Your task to perform on an android device: Open privacy settings Image 0: 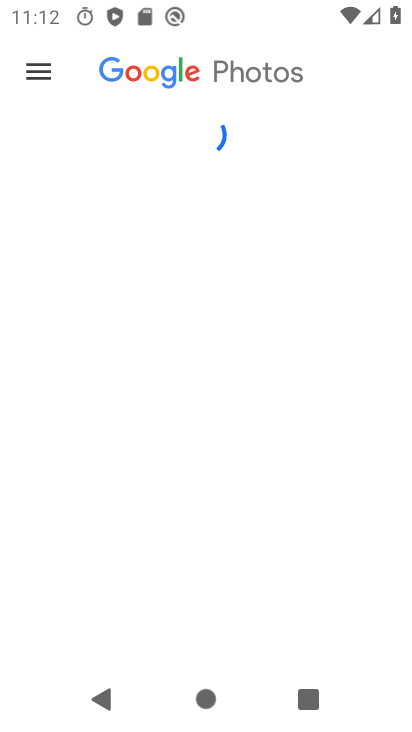
Step 0: press home button
Your task to perform on an android device: Open privacy settings Image 1: 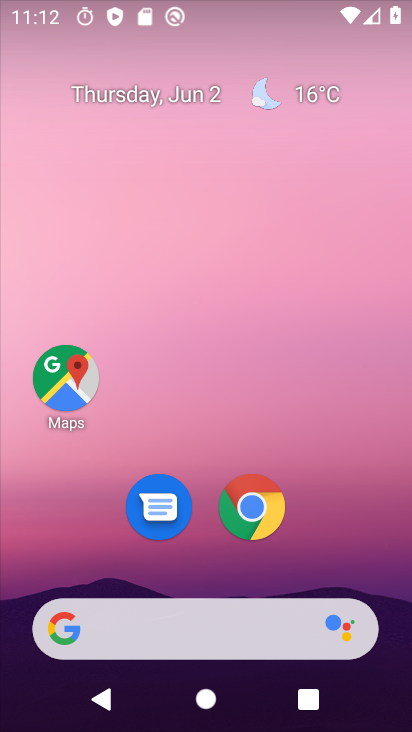
Step 1: drag from (395, 637) to (265, 31)
Your task to perform on an android device: Open privacy settings Image 2: 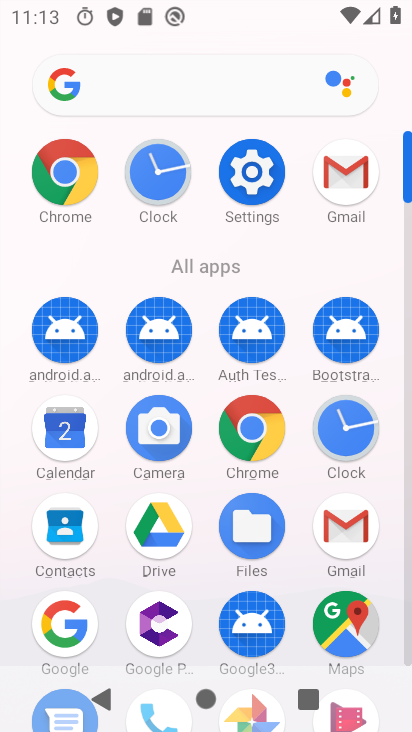
Step 2: click (233, 169)
Your task to perform on an android device: Open privacy settings Image 3: 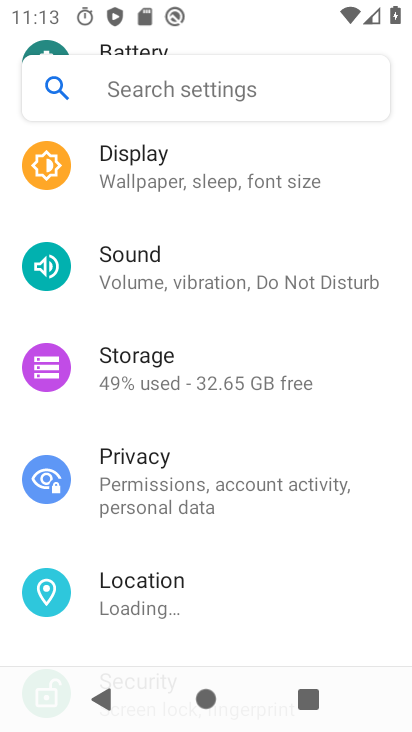
Step 3: click (149, 481)
Your task to perform on an android device: Open privacy settings Image 4: 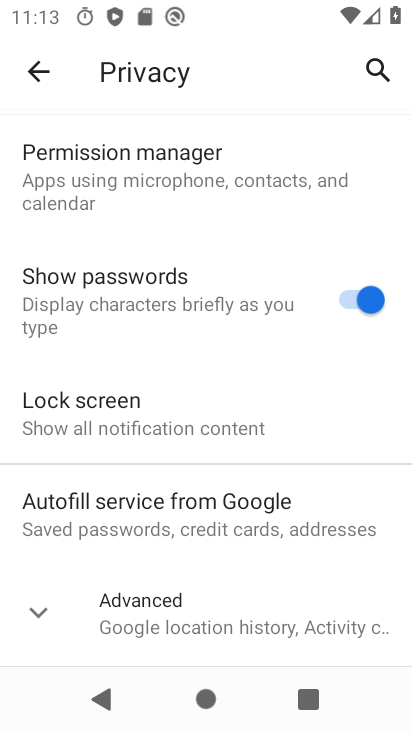
Step 4: task complete